Your task to perform on an android device: Open Google Image 0: 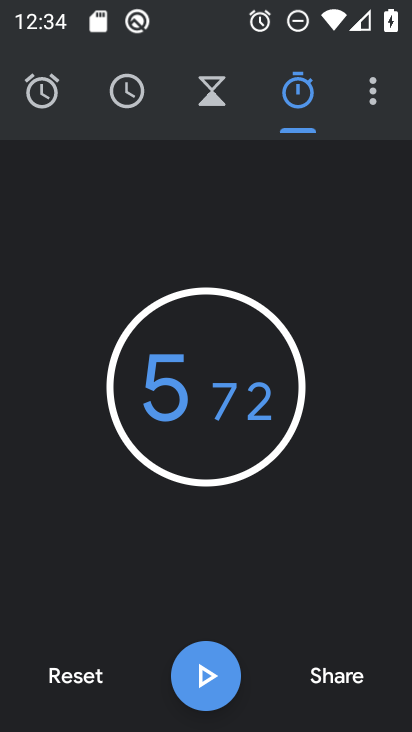
Step 0: press home button
Your task to perform on an android device: Open Google Image 1: 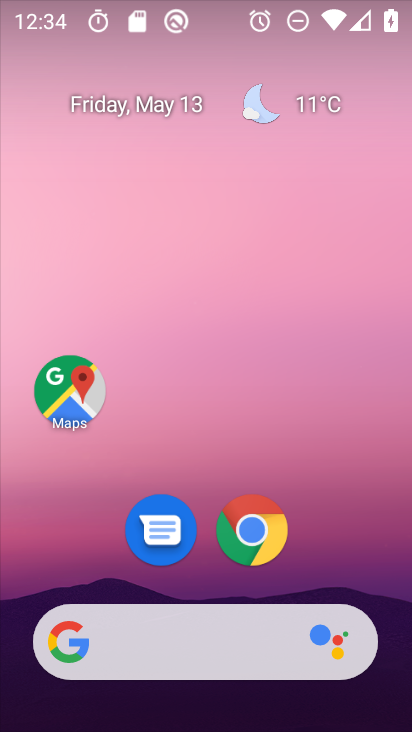
Step 1: drag from (175, 639) to (327, 106)
Your task to perform on an android device: Open Google Image 2: 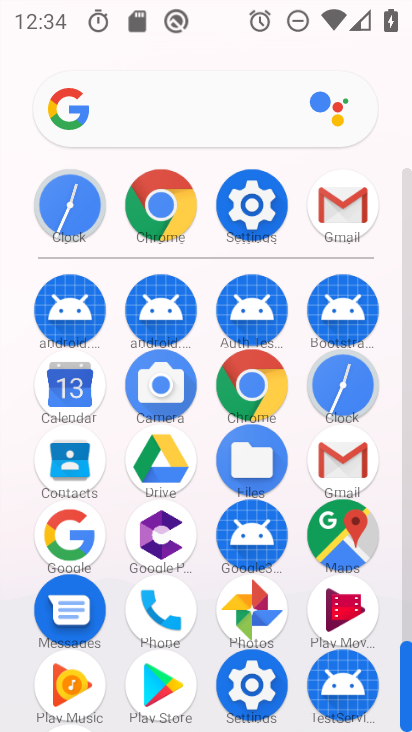
Step 2: click (80, 541)
Your task to perform on an android device: Open Google Image 3: 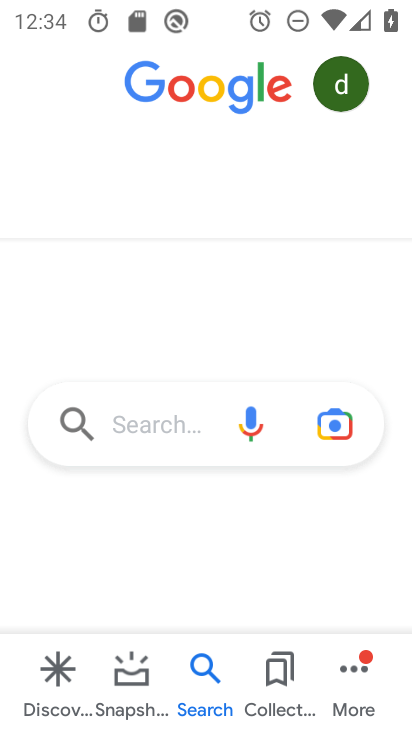
Step 3: task complete